Your task to perform on an android device: Open location settings Image 0: 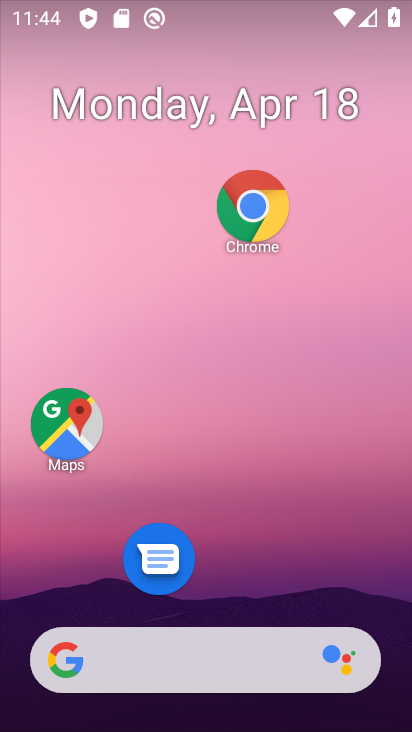
Step 0: drag from (236, 594) to (239, 119)
Your task to perform on an android device: Open location settings Image 1: 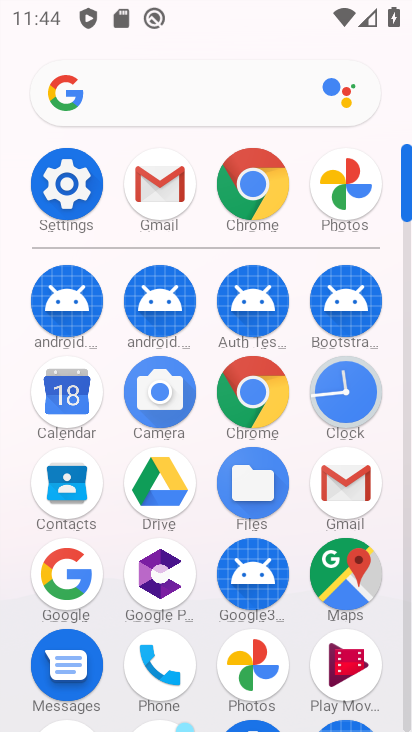
Step 1: drag from (293, 525) to (306, 257)
Your task to perform on an android device: Open location settings Image 2: 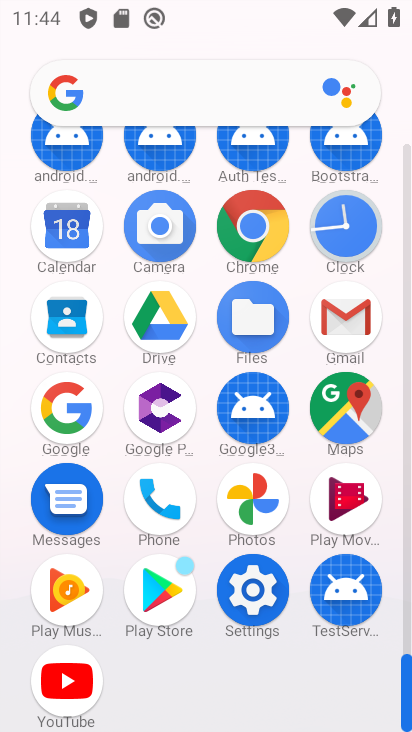
Step 2: click (265, 599)
Your task to perform on an android device: Open location settings Image 3: 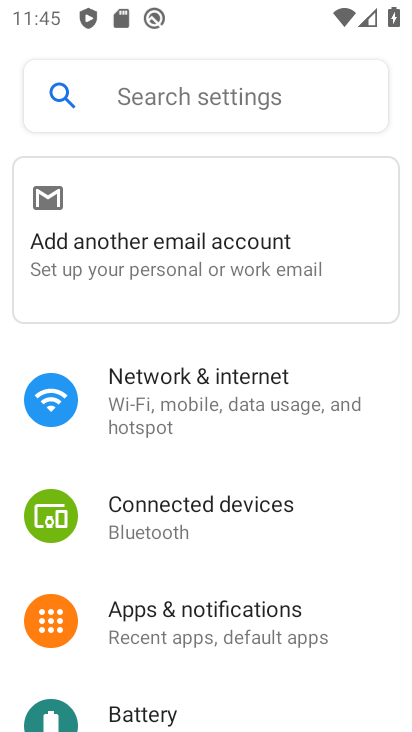
Step 3: drag from (228, 600) to (245, 268)
Your task to perform on an android device: Open location settings Image 4: 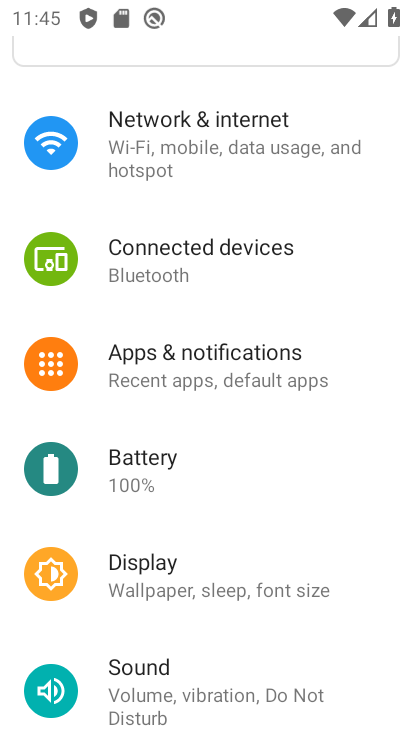
Step 4: drag from (242, 558) to (216, 187)
Your task to perform on an android device: Open location settings Image 5: 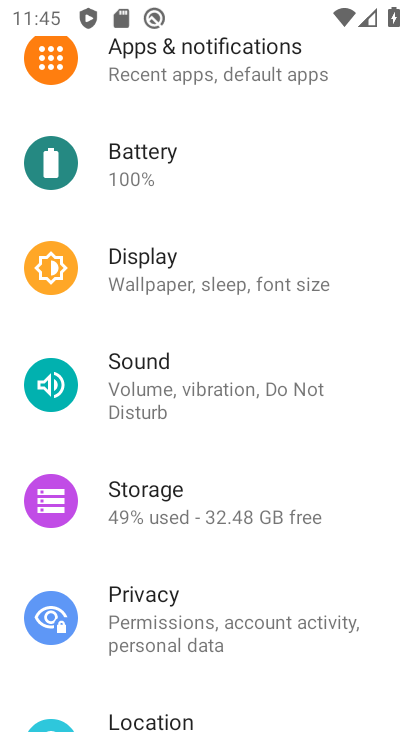
Step 5: drag from (278, 586) to (288, 219)
Your task to perform on an android device: Open location settings Image 6: 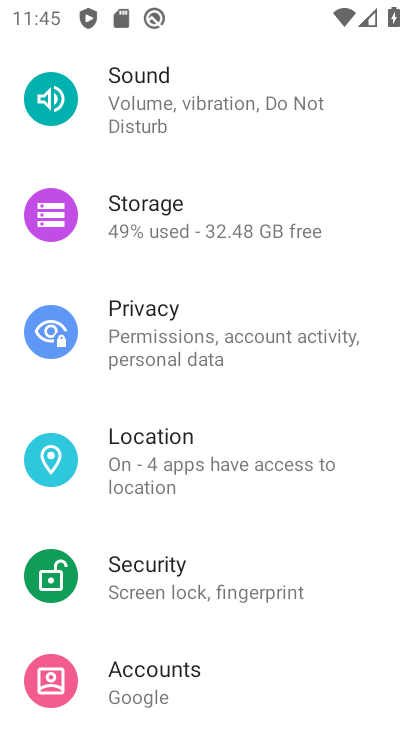
Step 6: click (271, 464)
Your task to perform on an android device: Open location settings Image 7: 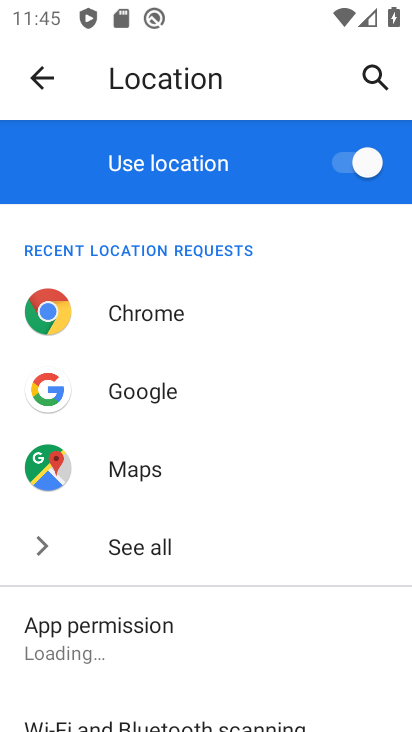
Step 7: drag from (283, 563) to (325, 274)
Your task to perform on an android device: Open location settings Image 8: 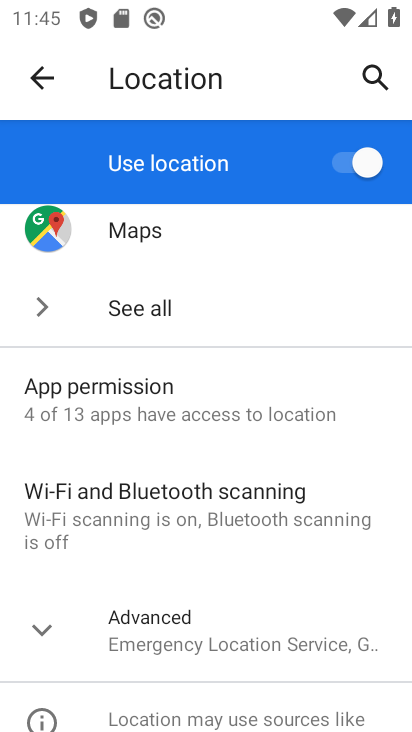
Step 8: click (256, 419)
Your task to perform on an android device: Open location settings Image 9: 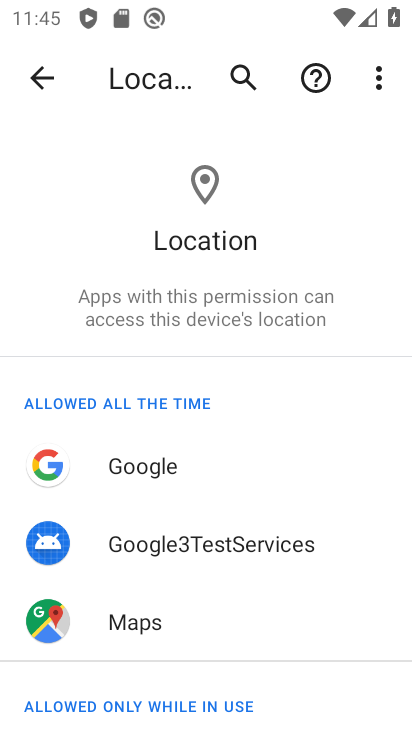
Step 9: click (39, 74)
Your task to perform on an android device: Open location settings Image 10: 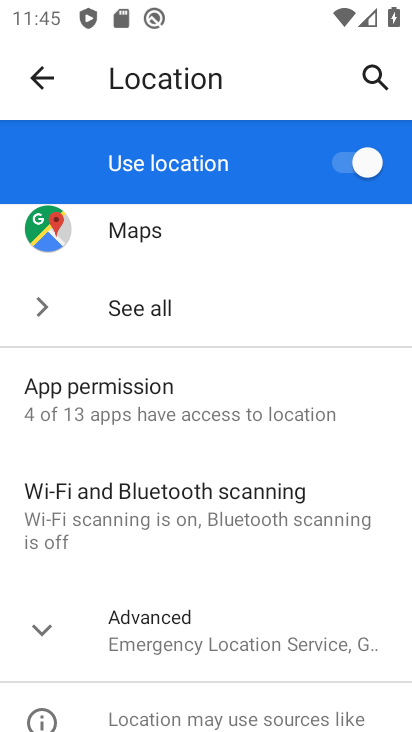
Step 10: click (174, 637)
Your task to perform on an android device: Open location settings Image 11: 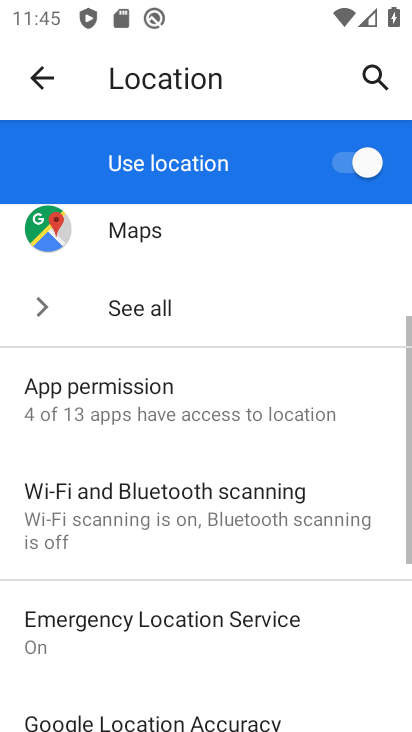
Step 11: task complete